Your task to perform on an android device: open sync settings in chrome Image 0: 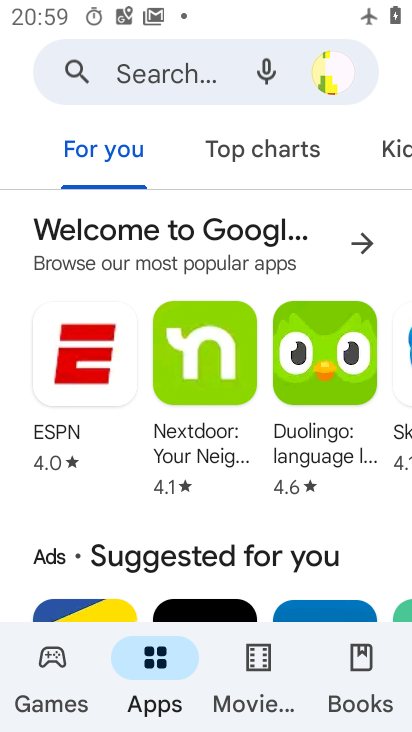
Step 0: press home button
Your task to perform on an android device: open sync settings in chrome Image 1: 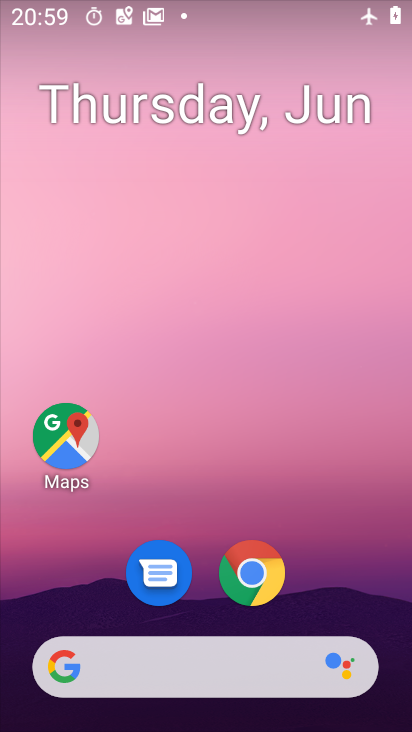
Step 1: drag from (216, 583) to (221, 468)
Your task to perform on an android device: open sync settings in chrome Image 2: 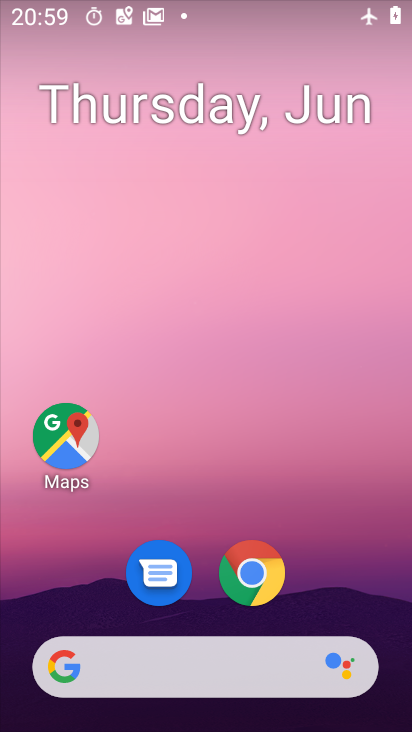
Step 2: click (248, 584)
Your task to perform on an android device: open sync settings in chrome Image 3: 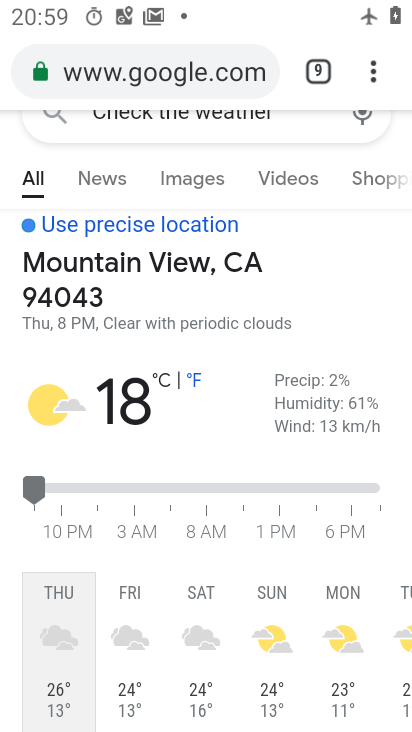
Step 3: click (378, 53)
Your task to perform on an android device: open sync settings in chrome Image 4: 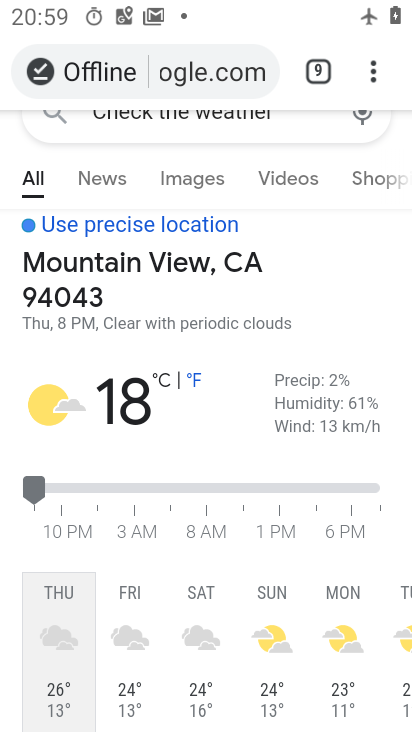
Step 4: click (361, 70)
Your task to perform on an android device: open sync settings in chrome Image 5: 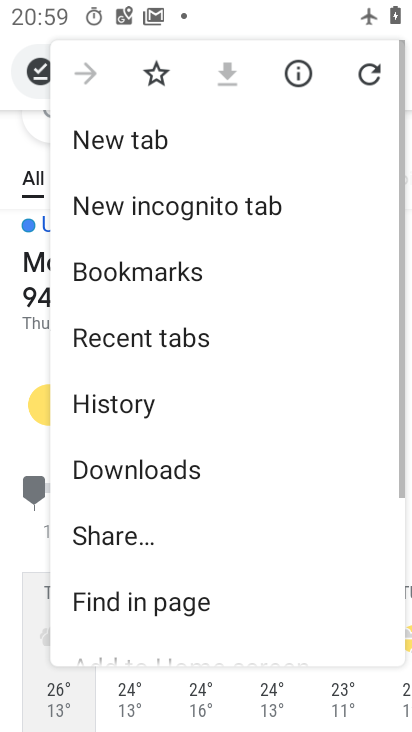
Step 5: drag from (207, 573) to (259, 248)
Your task to perform on an android device: open sync settings in chrome Image 6: 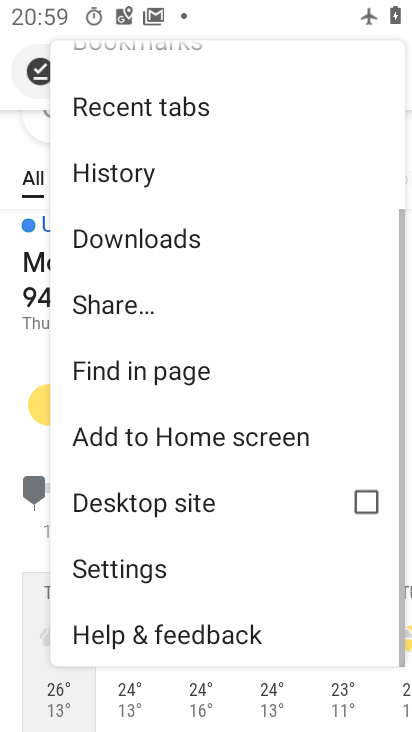
Step 6: click (174, 557)
Your task to perform on an android device: open sync settings in chrome Image 7: 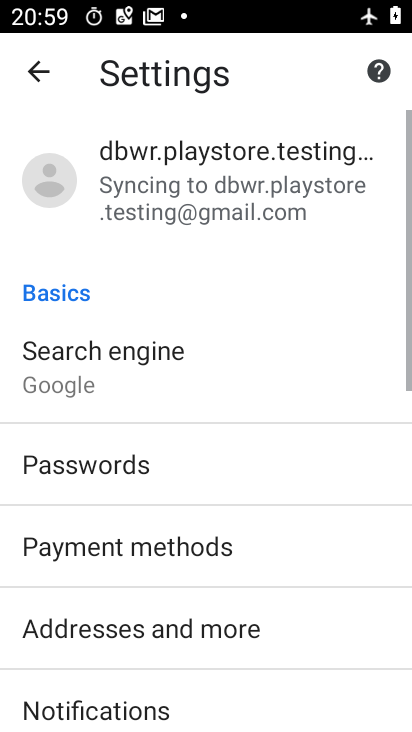
Step 7: click (138, 182)
Your task to perform on an android device: open sync settings in chrome Image 8: 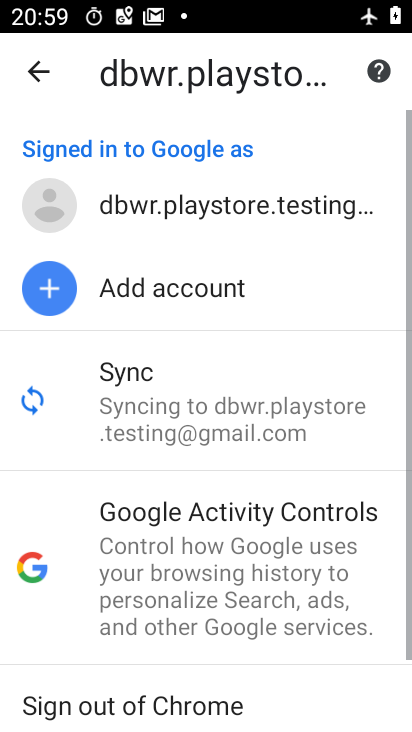
Step 8: click (138, 373)
Your task to perform on an android device: open sync settings in chrome Image 9: 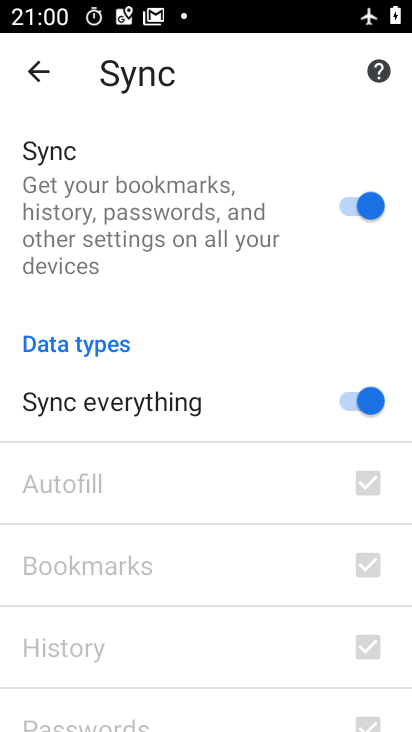
Step 9: task complete